Your task to perform on an android device: Open accessibility settings Image 0: 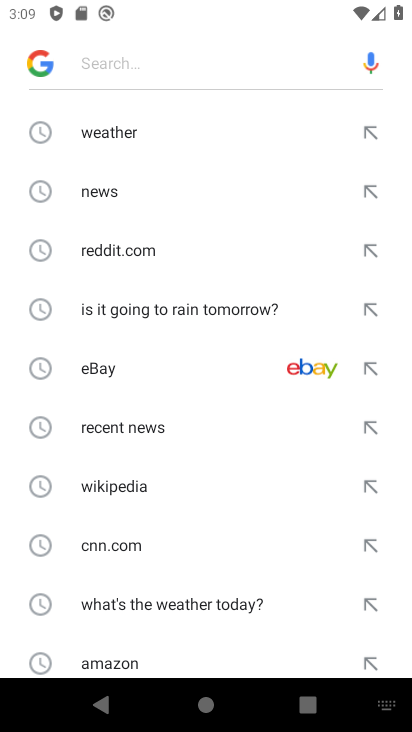
Step 0: press home button
Your task to perform on an android device: Open accessibility settings Image 1: 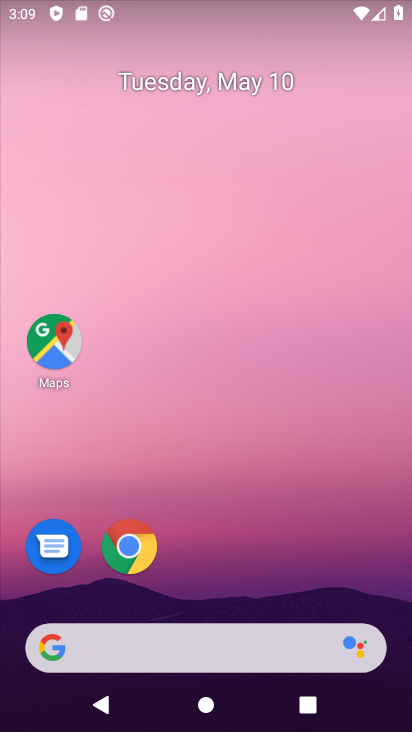
Step 1: drag from (294, 599) to (282, 33)
Your task to perform on an android device: Open accessibility settings Image 2: 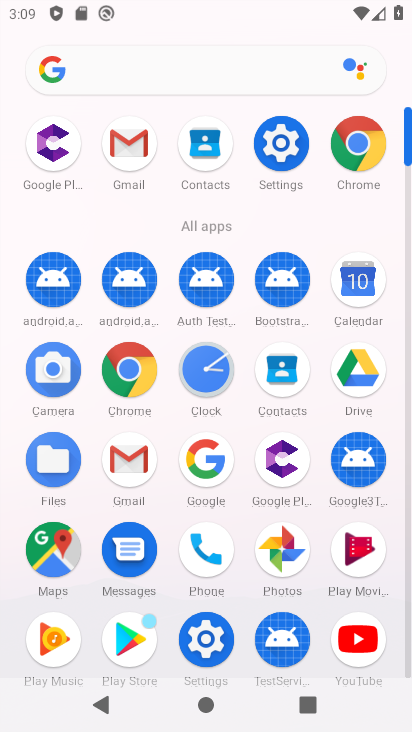
Step 2: click (281, 156)
Your task to perform on an android device: Open accessibility settings Image 3: 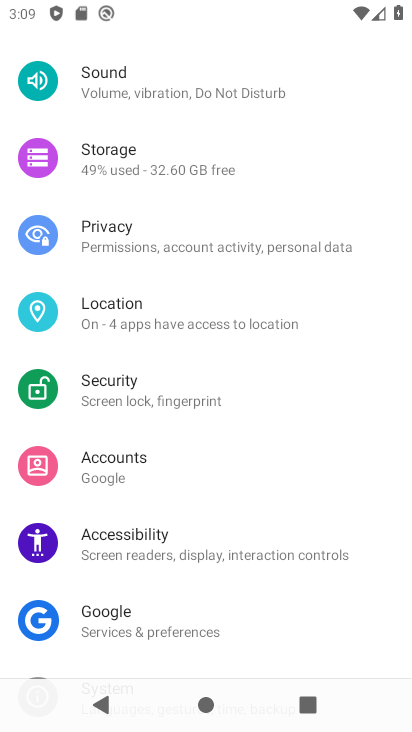
Step 3: click (156, 549)
Your task to perform on an android device: Open accessibility settings Image 4: 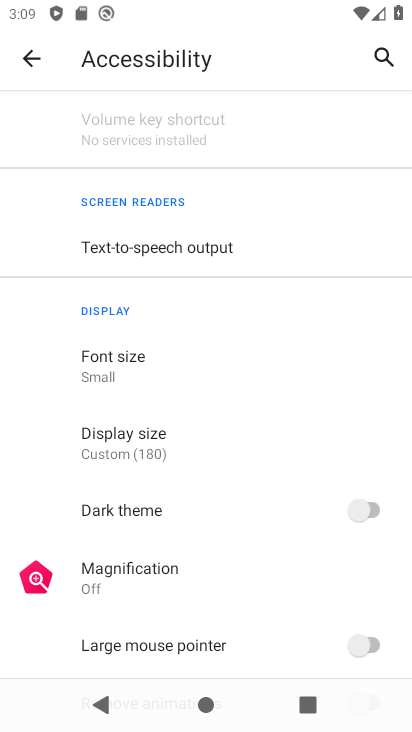
Step 4: task complete